Your task to perform on an android device: Open Chrome and go to settings Image 0: 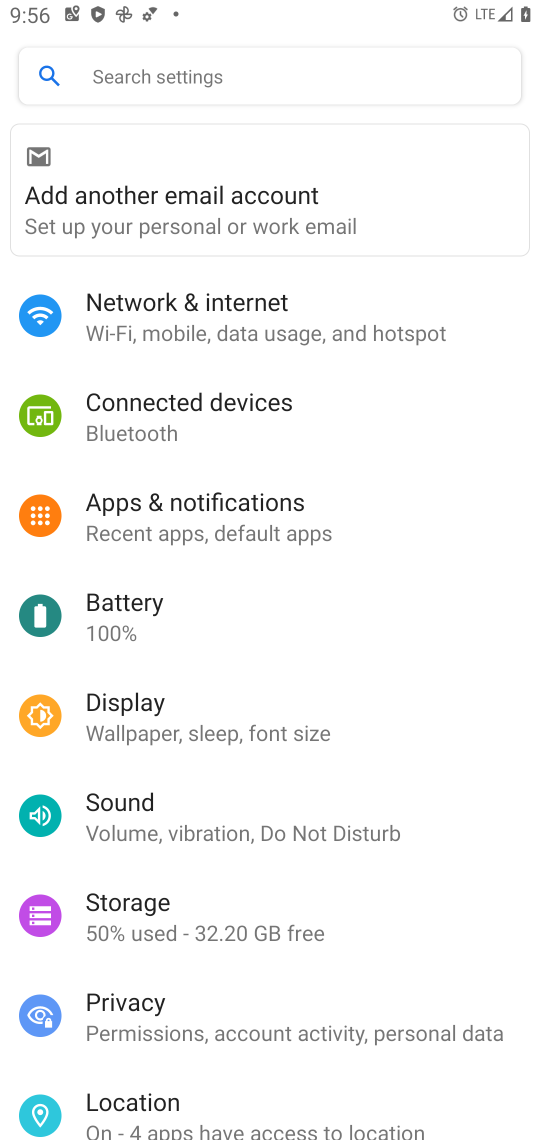
Step 0: press home button
Your task to perform on an android device: Open Chrome and go to settings Image 1: 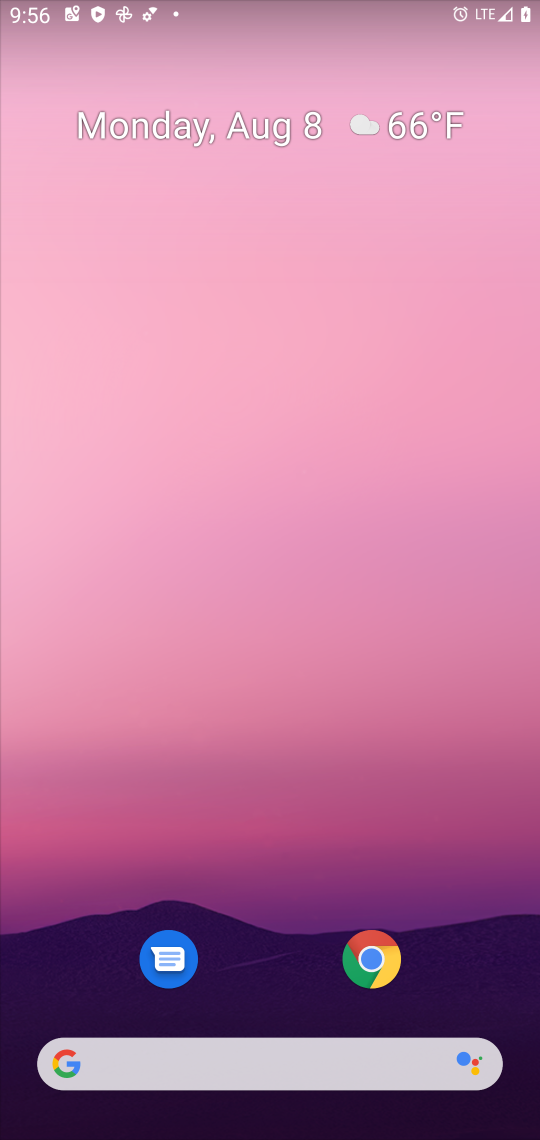
Step 1: drag from (460, 789) to (306, 1)
Your task to perform on an android device: Open Chrome and go to settings Image 2: 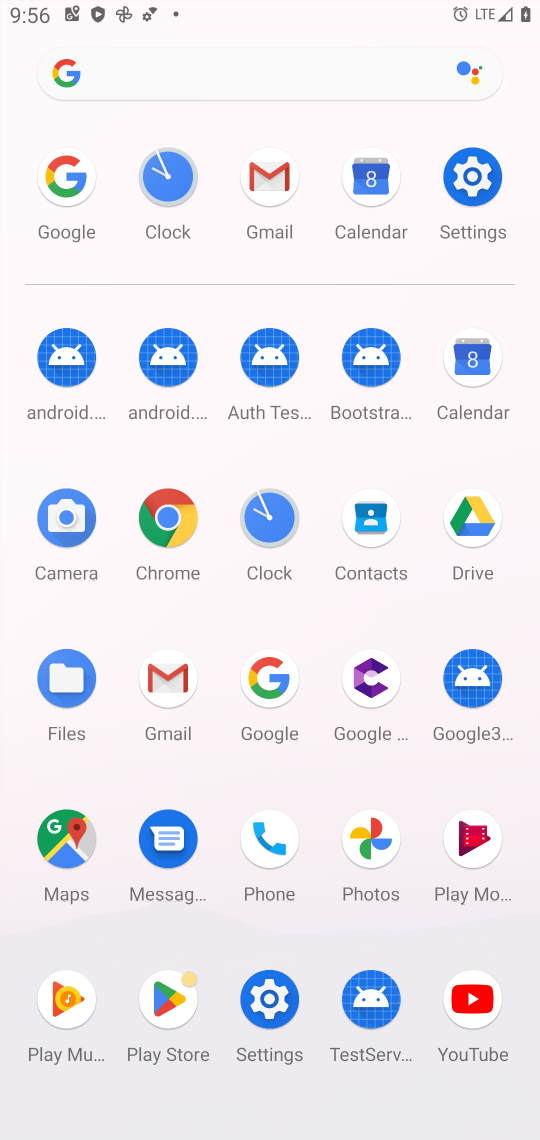
Step 2: click (173, 539)
Your task to perform on an android device: Open Chrome and go to settings Image 3: 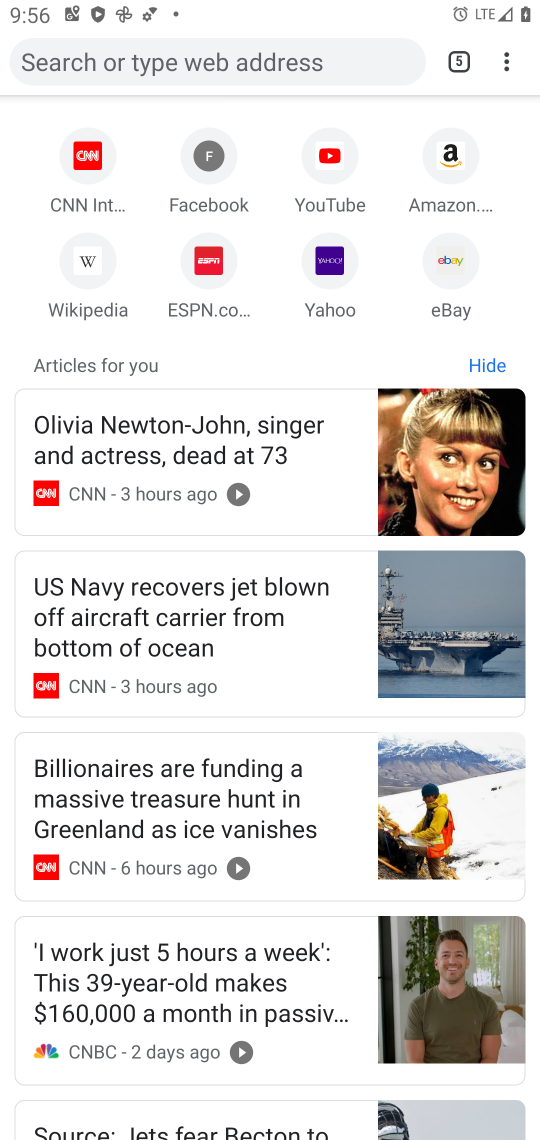
Step 3: click (507, 61)
Your task to perform on an android device: Open Chrome and go to settings Image 4: 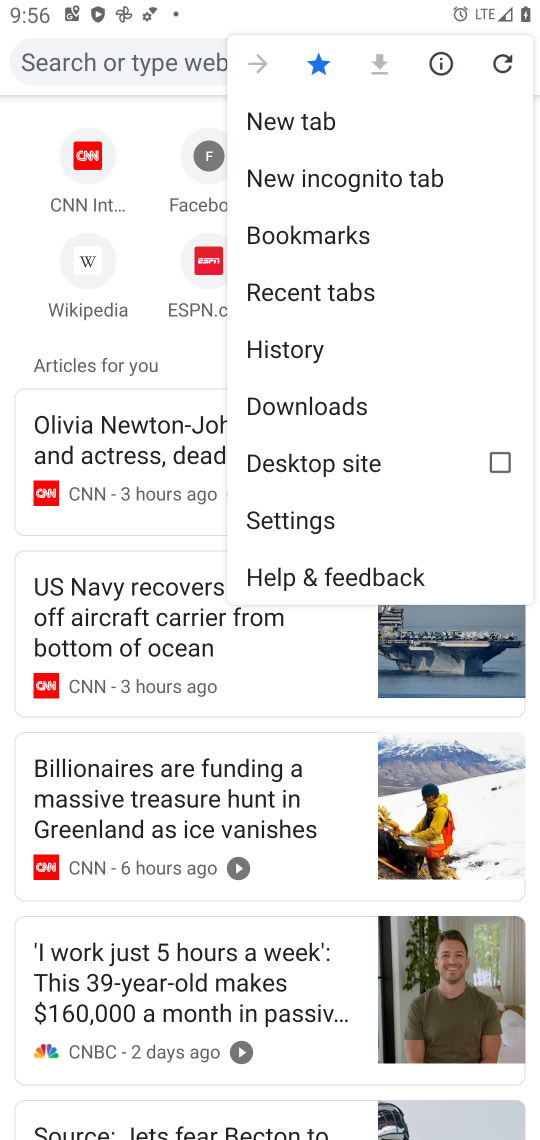
Step 4: click (346, 517)
Your task to perform on an android device: Open Chrome and go to settings Image 5: 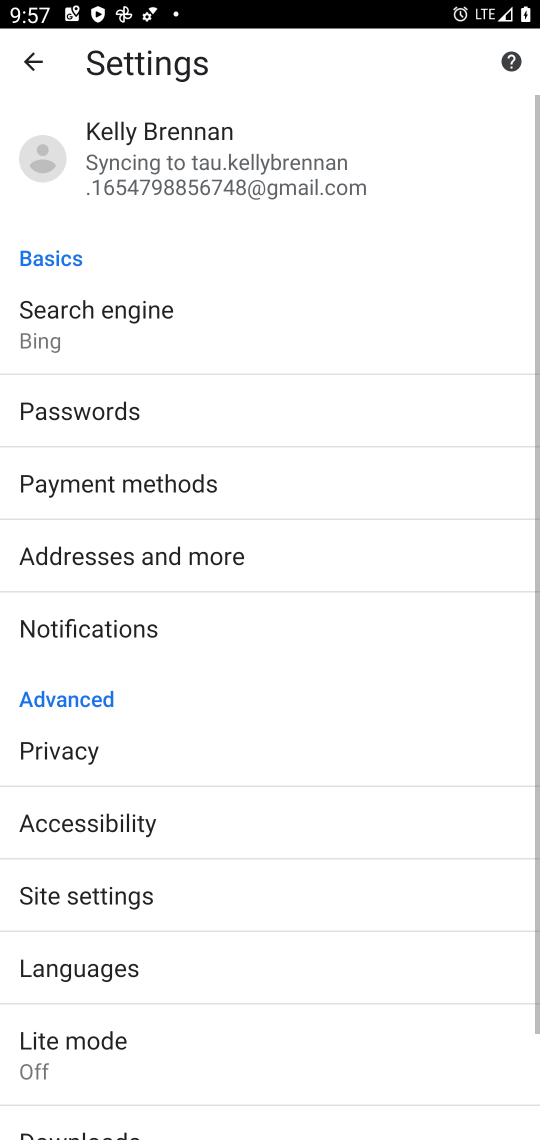
Step 5: task complete